Your task to perform on an android device: toggle translation in the chrome app Image 0: 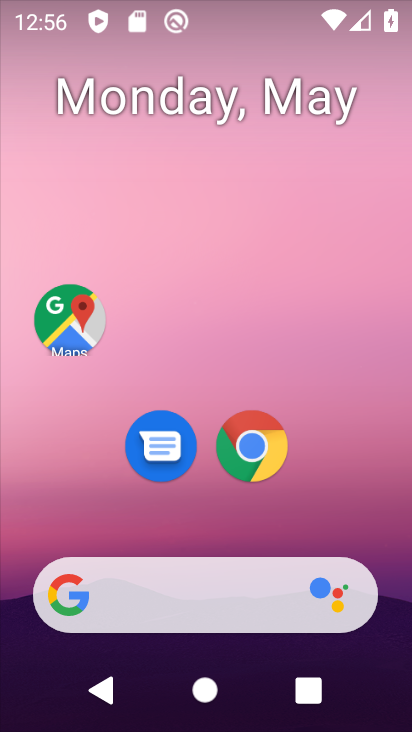
Step 0: click (275, 473)
Your task to perform on an android device: toggle translation in the chrome app Image 1: 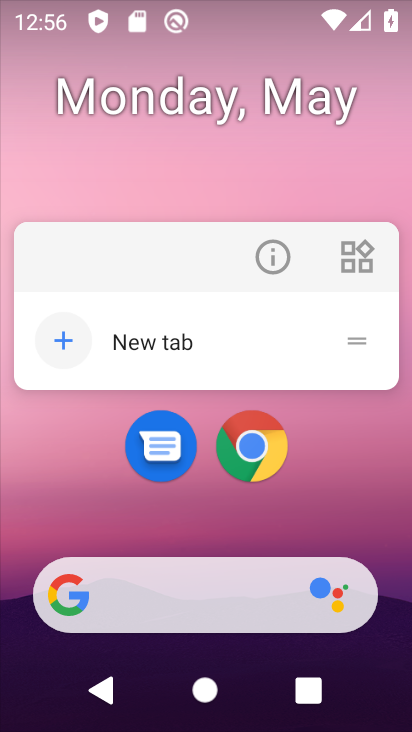
Step 1: click (273, 469)
Your task to perform on an android device: toggle translation in the chrome app Image 2: 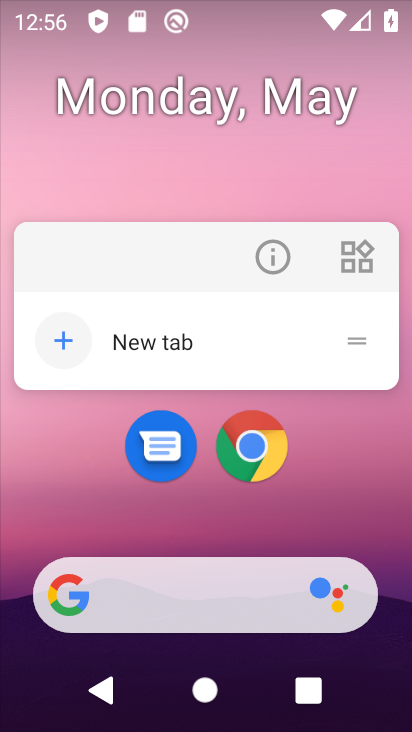
Step 2: click (256, 445)
Your task to perform on an android device: toggle translation in the chrome app Image 3: 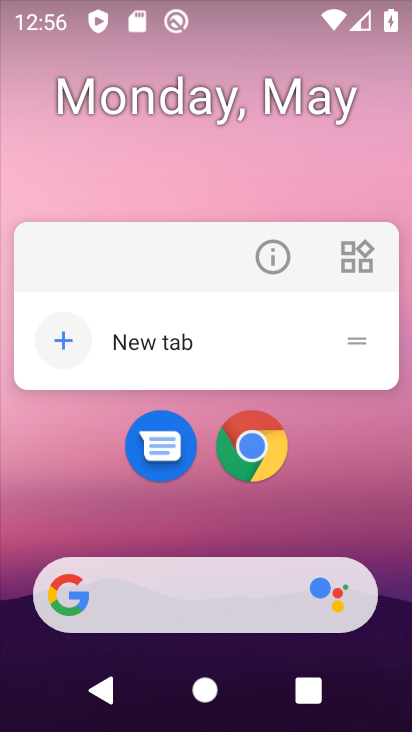
Step 3: click (252, 453)
Your task to perform on an android device: toggle translation in the chrome app Image 4: 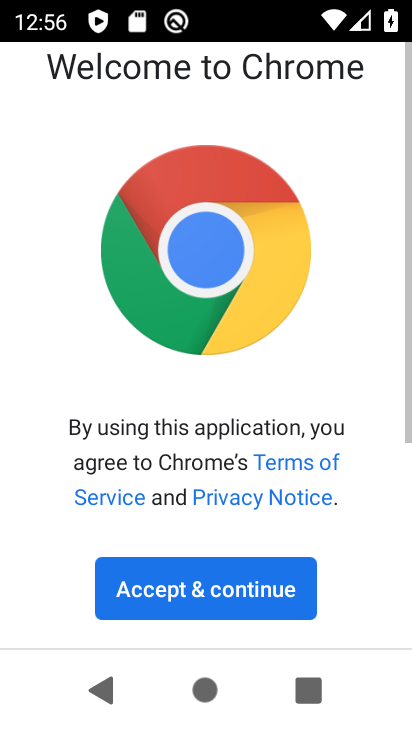
Step 4: click (250, 596)
Your task to perform on an android device: toggle translation in the chrome app Image 5: 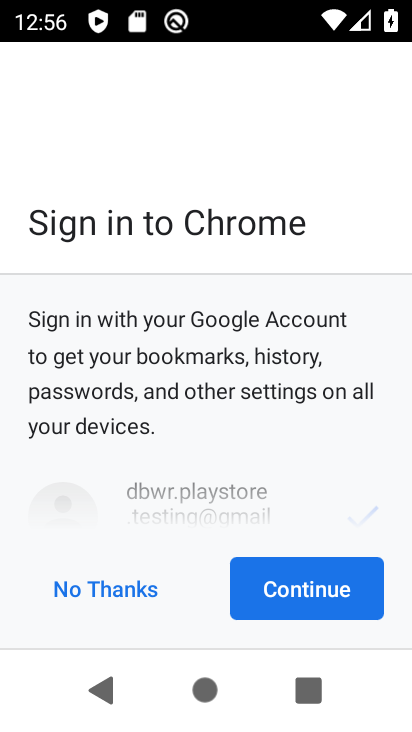
Step 5: click (308, 595)
Your task to perform on an android device: toggle translation in the chrome app Image 6: 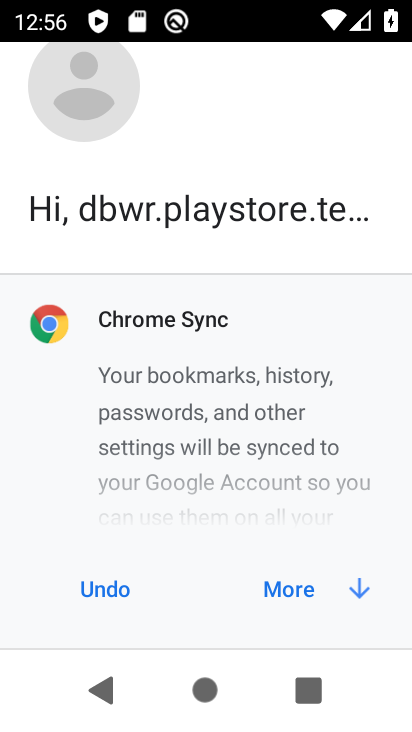
Step 6: click (308, 595)
Your task to perform on an android device: toggle translation in the chrome app Image 7: 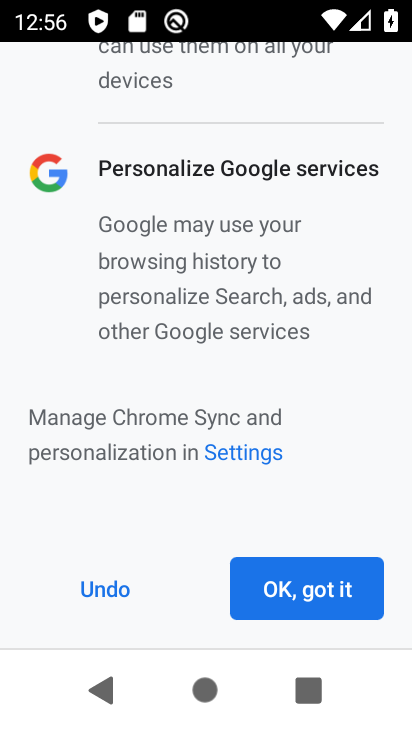
Step 7: click (308, 595)
Your task to perform on an android device: toggle translation in the chrome app Image 8: 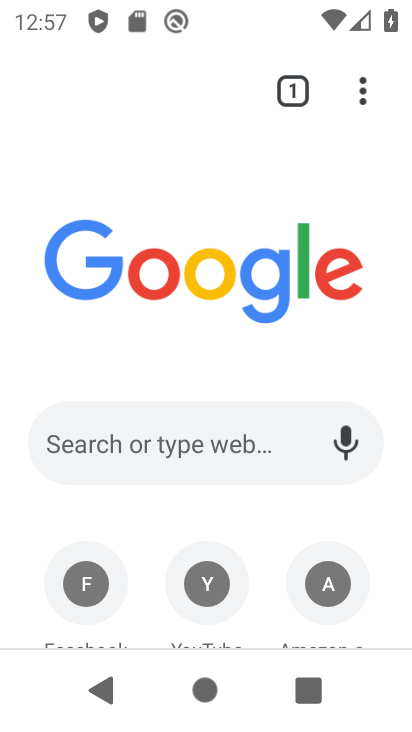
Step 8: drag from (375, 84) to (274, 482)
Your task to perform on an android device: toggle translation in the chrome app Image 9: 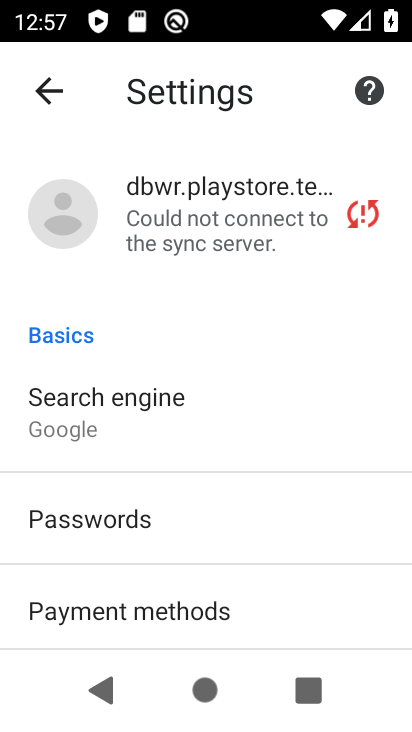
Step 9: drag from (245, 609) to (337, 147)
Your task to perform on an android device: toggle translation in the chrome app Image 10: 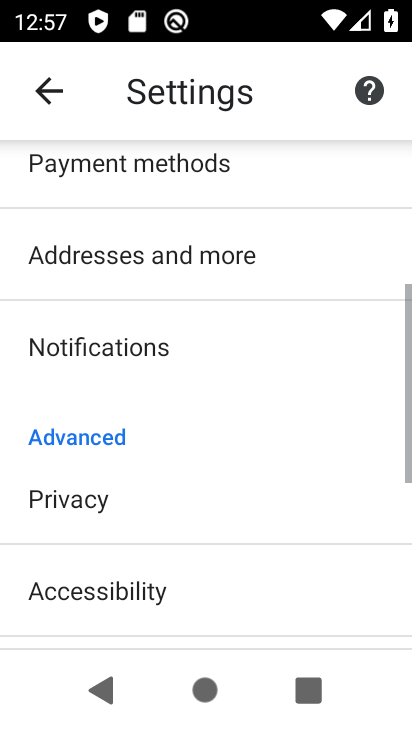
Step 10: drag from (251, 600) to (322, 254)
Your task to perform on an android device: toggle translation in the chrome app Image 11: 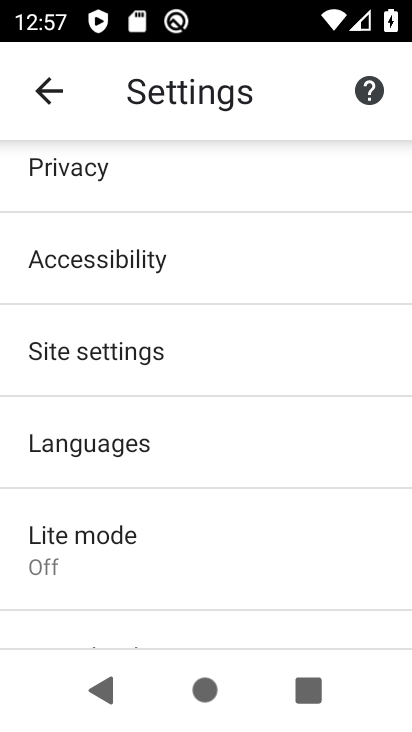
Step 11: click (264, 445)
Your task to perform on an android device: toggle translation in the chrome app Image 12: 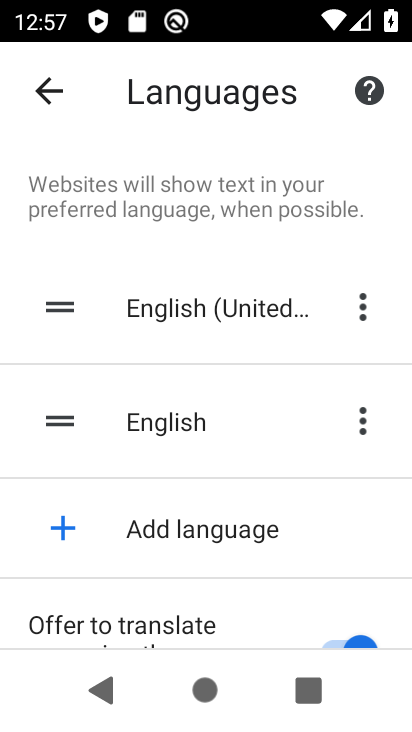
Step 12: task complete